Your task to perform on an android device: open app "Life360: Find Family & Friends" Image 0: 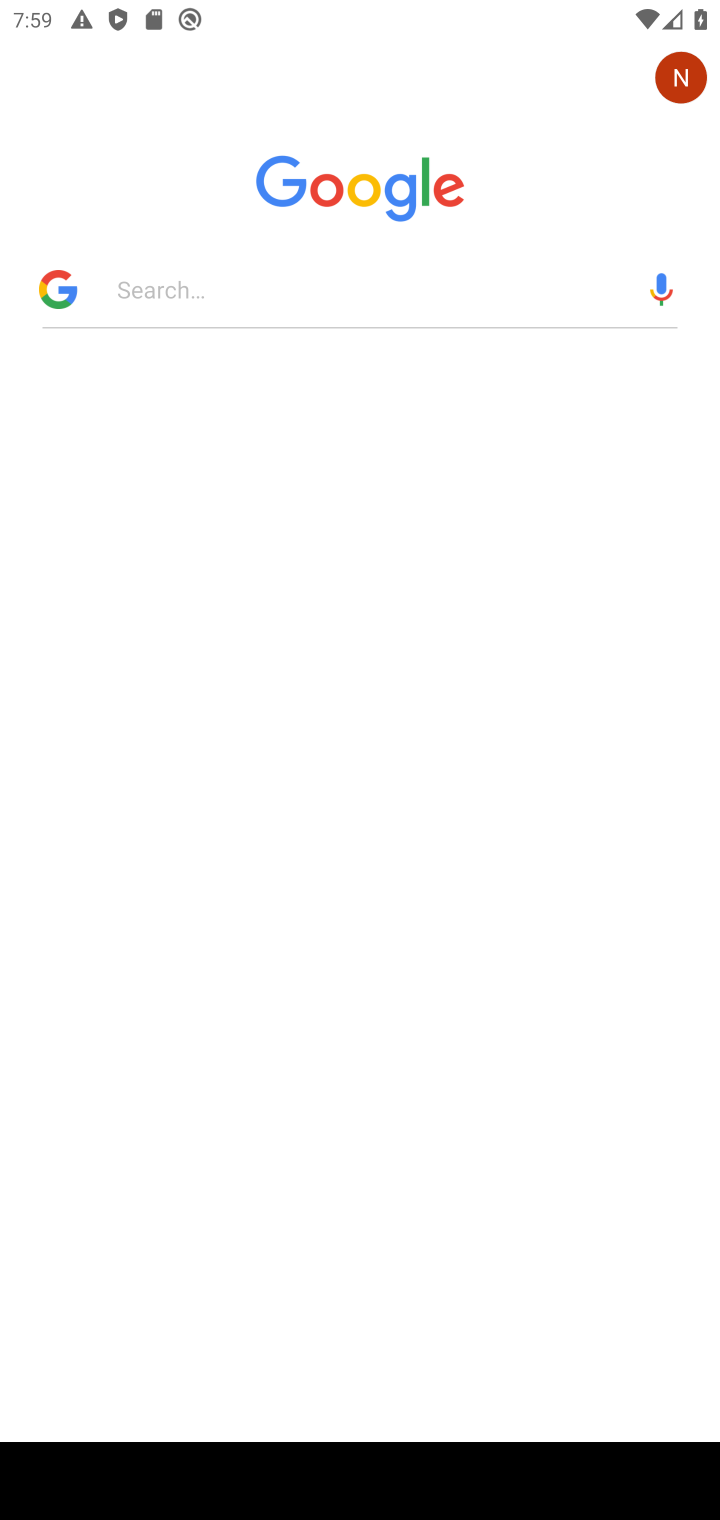
Step 0: press home button
Your task to perform on an android device: open app "Life360: Find Family & Friends" Image 1: 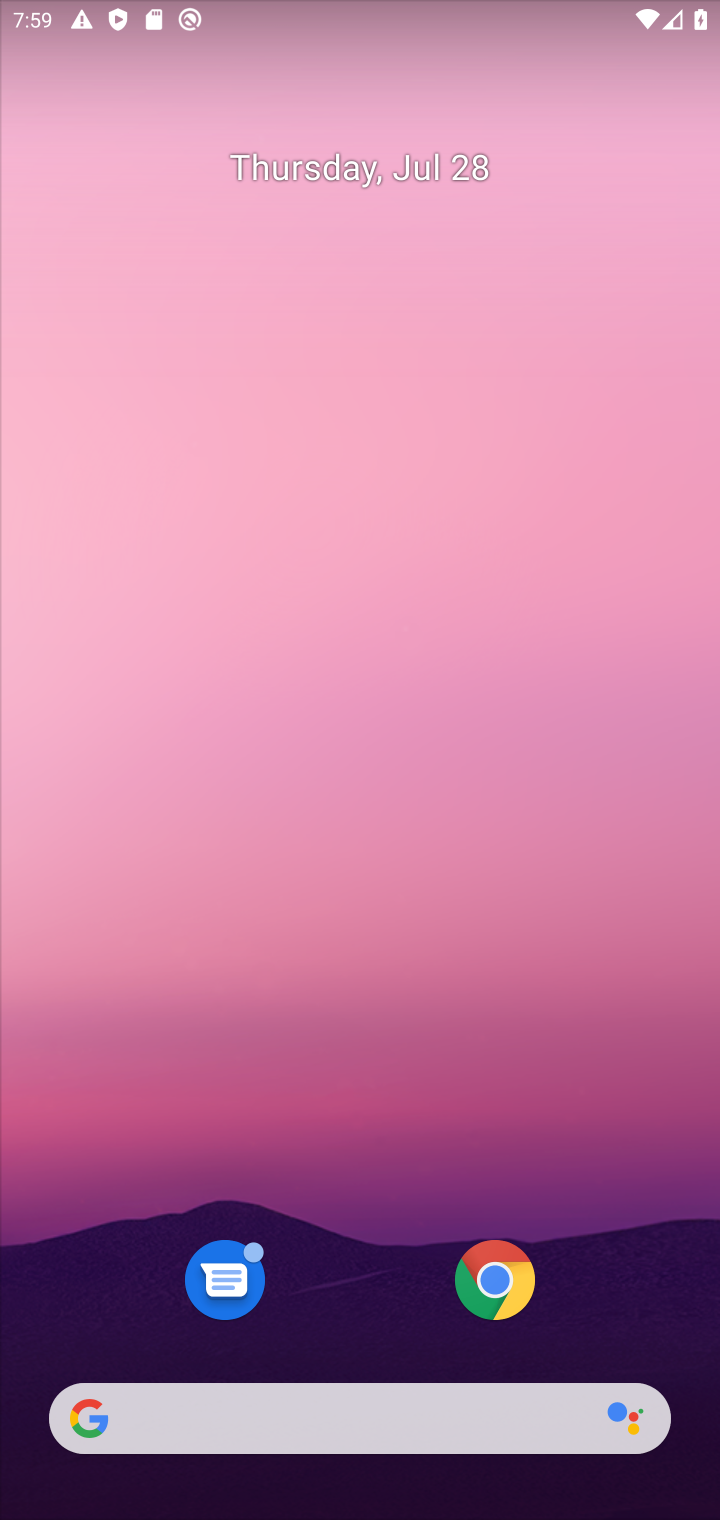
Step 1: drag from (394, 1327) to (277, 355)
Your task to perform on an android device: open app "Life360: Find Family & Friends" Image 2: 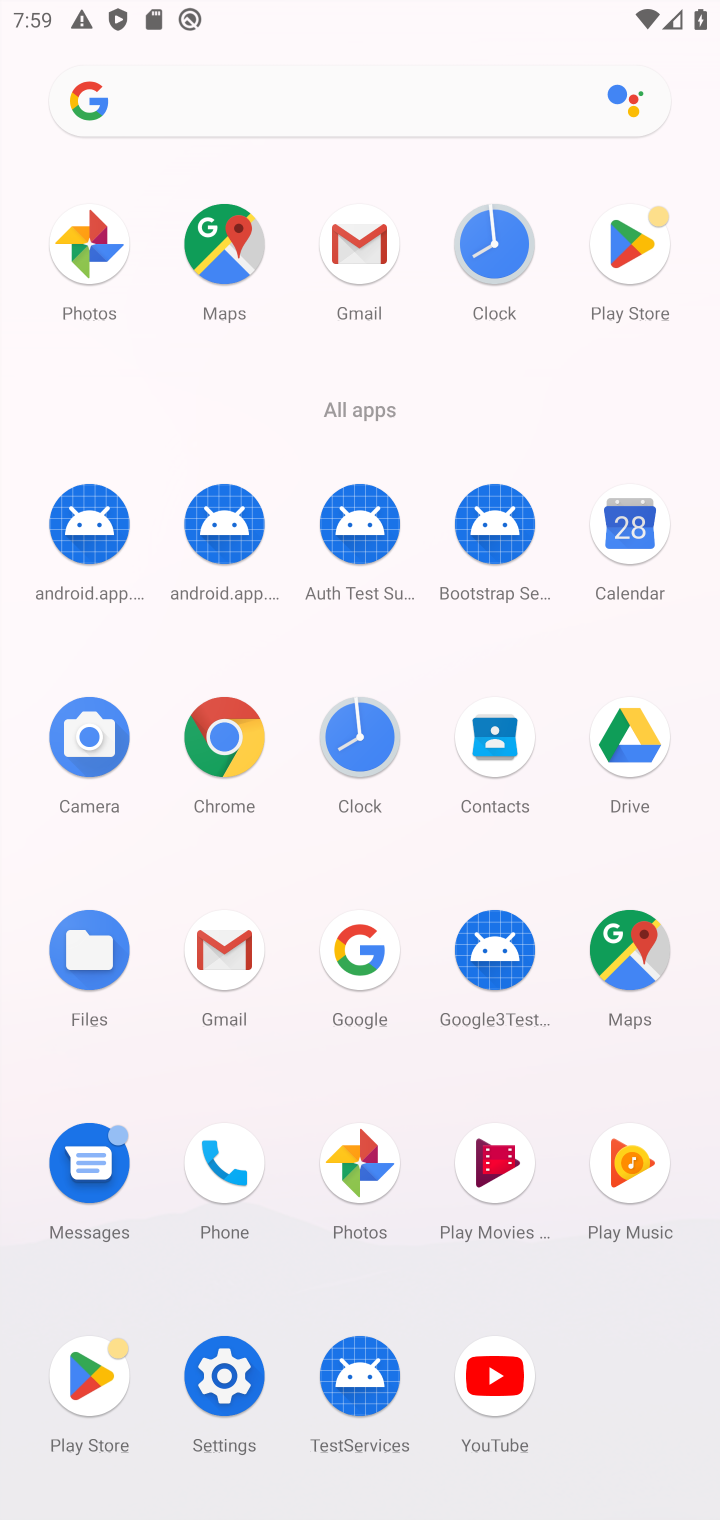
Step 2: click (635, 302)
Your task to perform on an android device: open app "Life360: Find Family & Friends" Image 3: 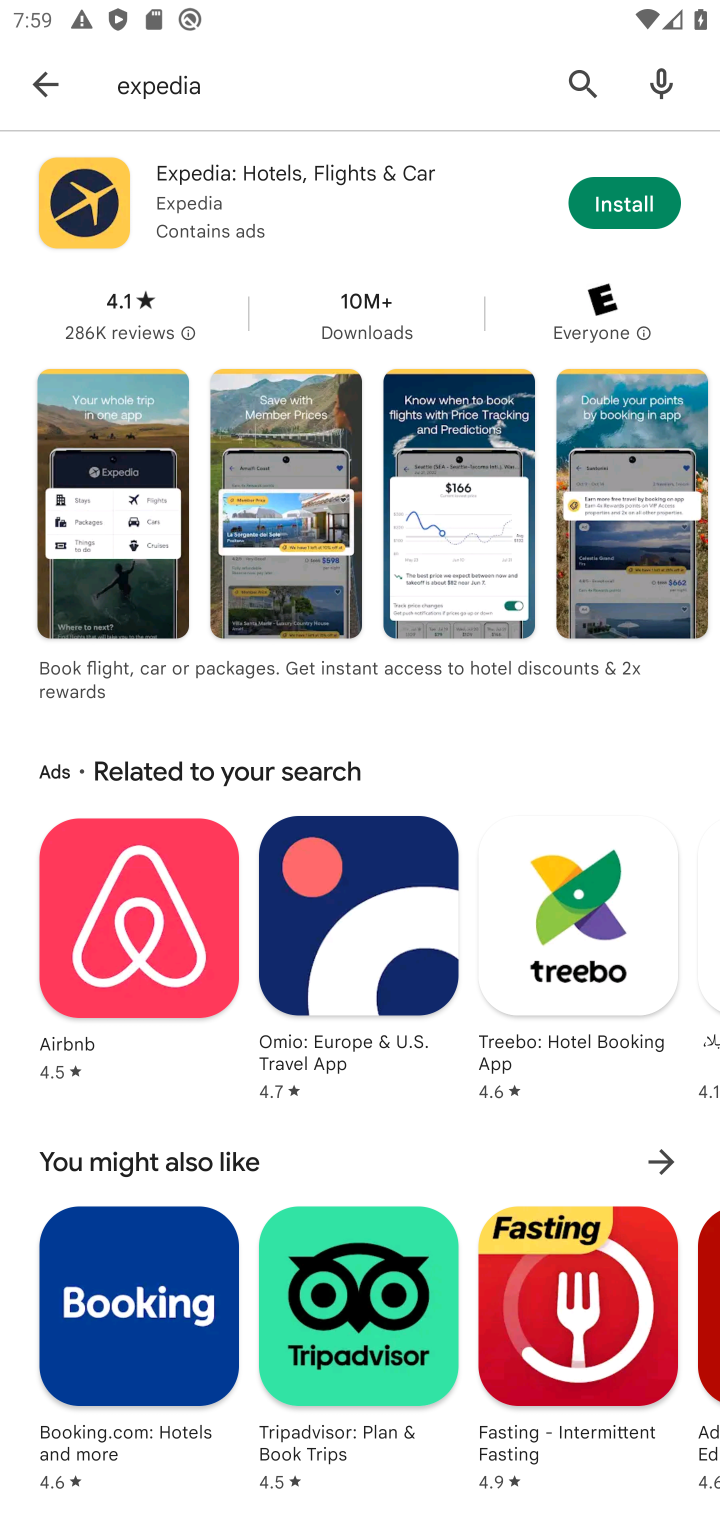
Step 3: type "life360"
Your task to perform on an android device: open app "Life360: Find Family & Friends" Image 4: 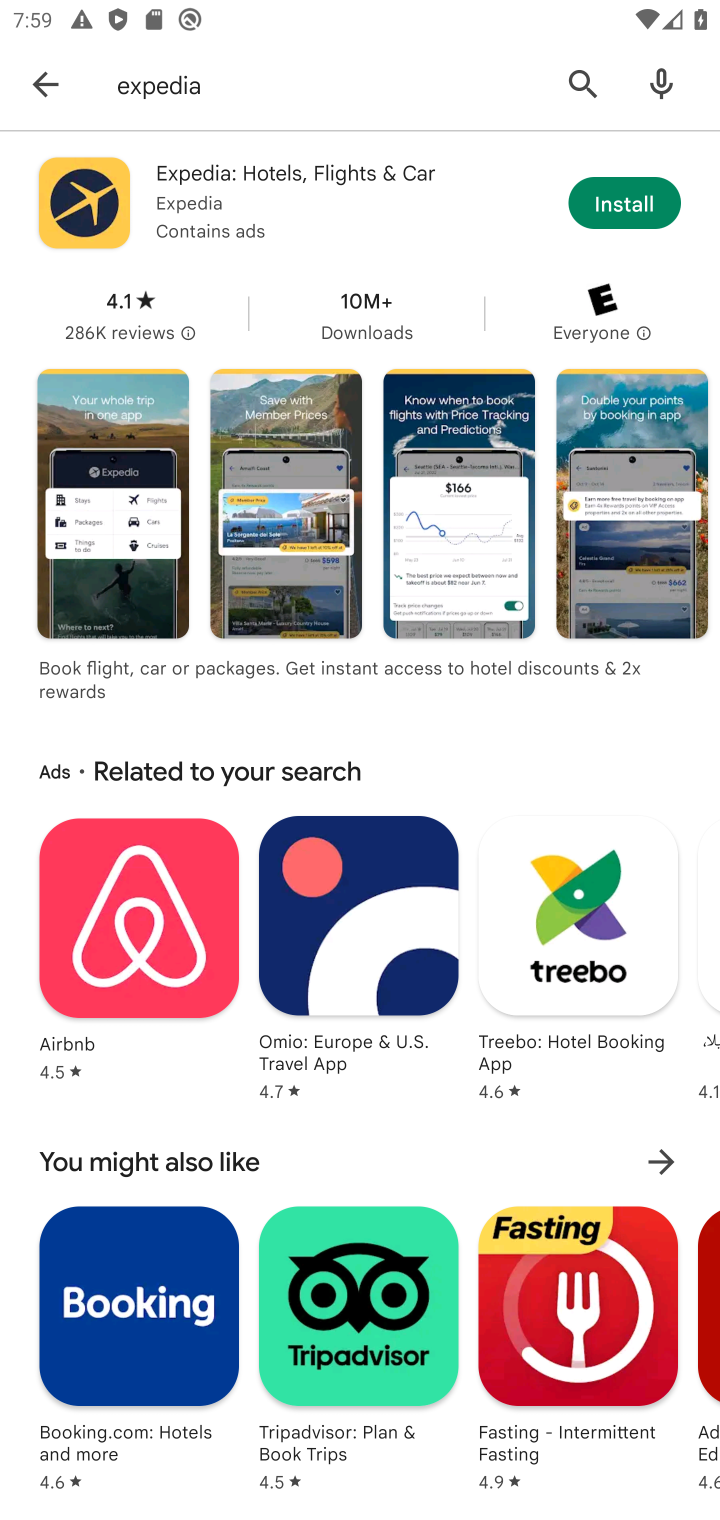
Step 4: click (578, 86)
Your task to perform on an android device: open app "Life360: Find Family & Friends" Image 5: 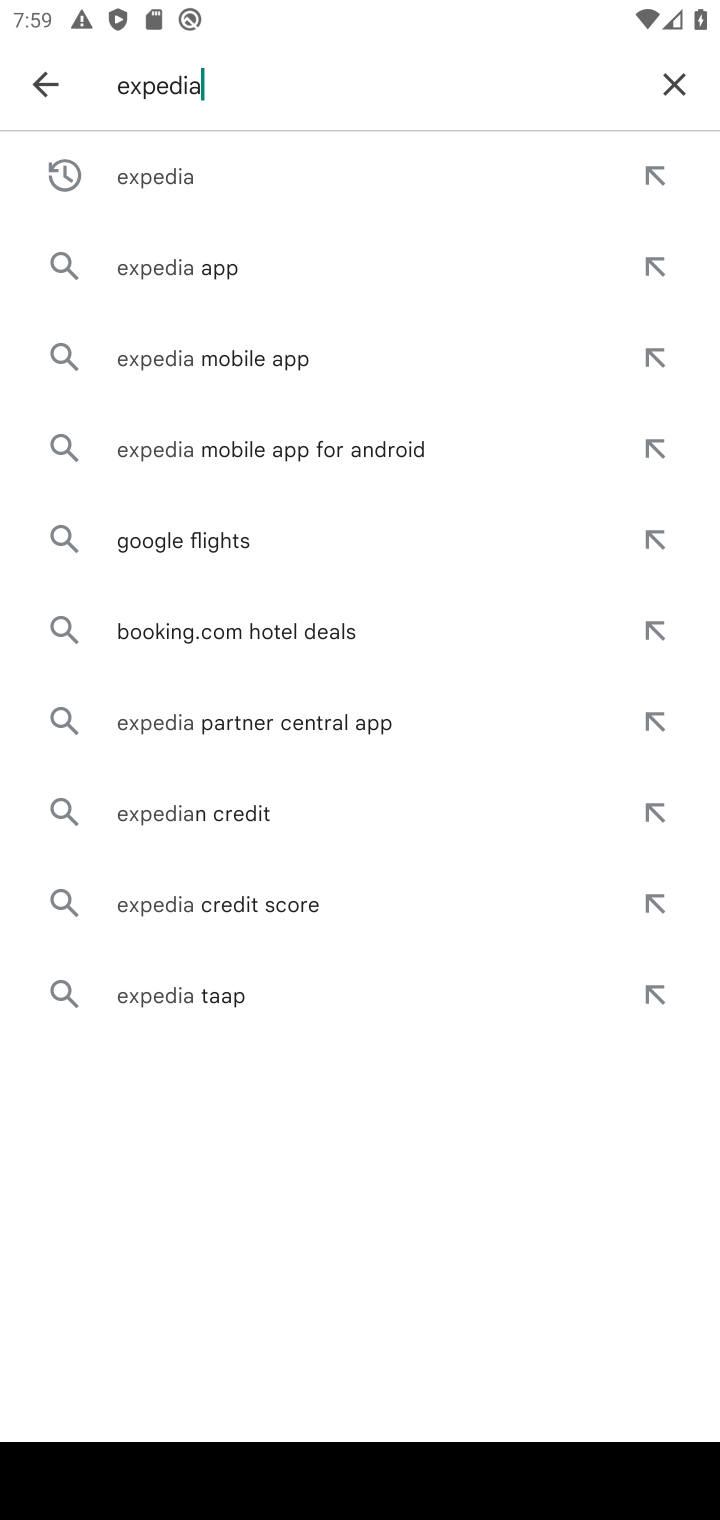
Step 5: click (661, 86)
Your task to perform on an android device: open app "Life360: Find Family & Friends" Image 6: 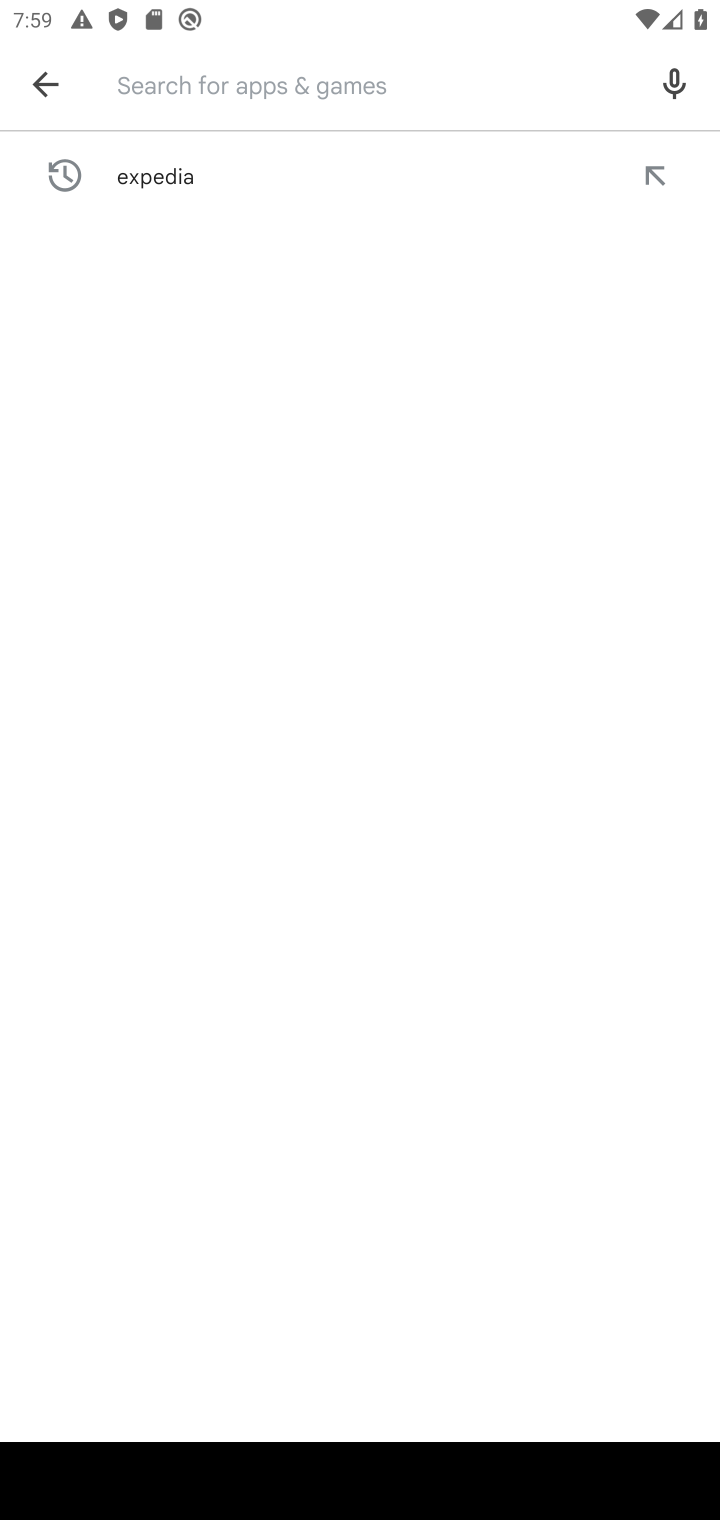
Step 6: type "life 360"
Your task to perform on an android device: open app "Life360: Find Family & Friends" Image 7: 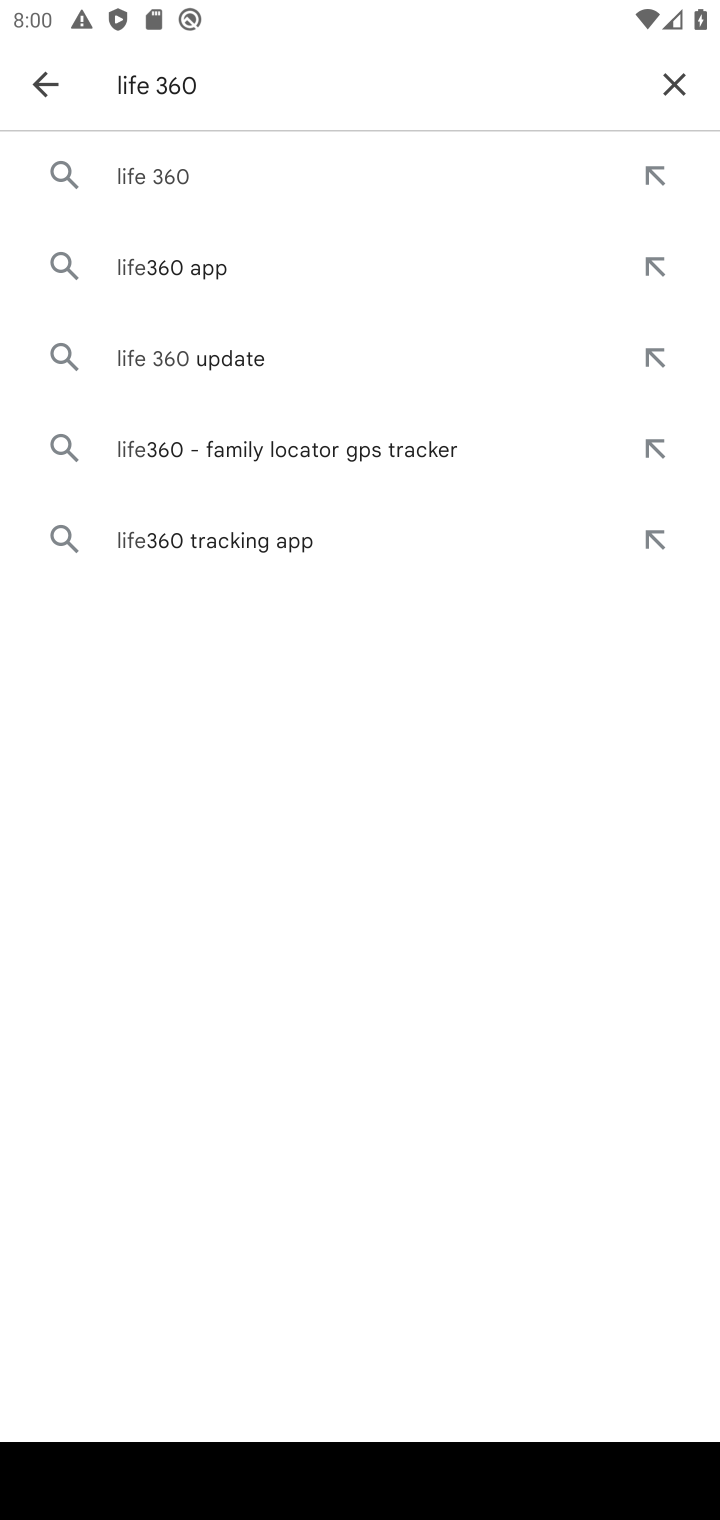
Step 7: click (191, 153)
Your task to perform on an android device: open app "Life360: Find Family & Friends" Image 8: 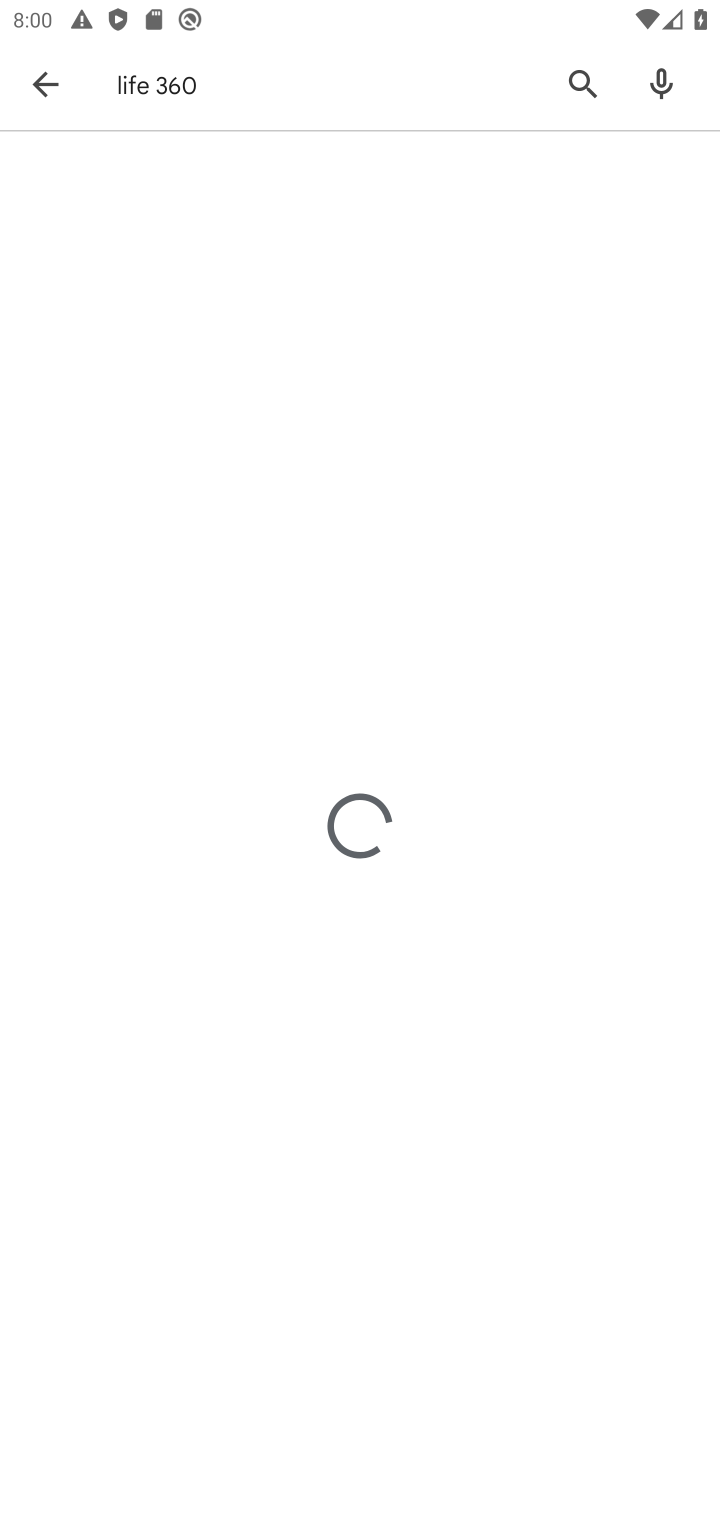
Step 8: task complete